Your task to perform on an android device: read, delete, or share a saved page in the chrome app Image 0: 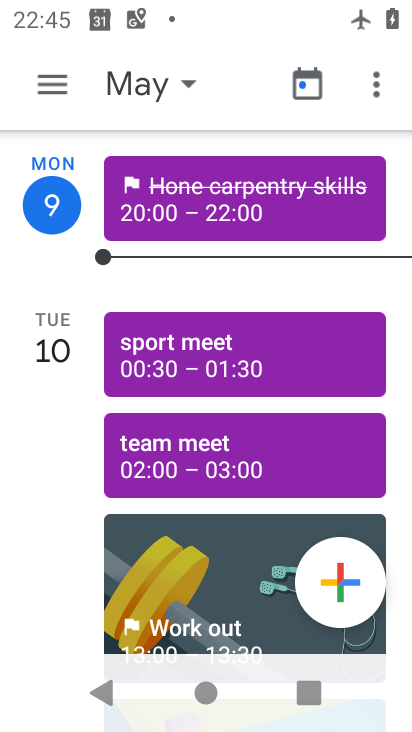
Step 0: press home button
Your task to perform on an android device: read, delete, or share a saved page in the chrome app Image 1: 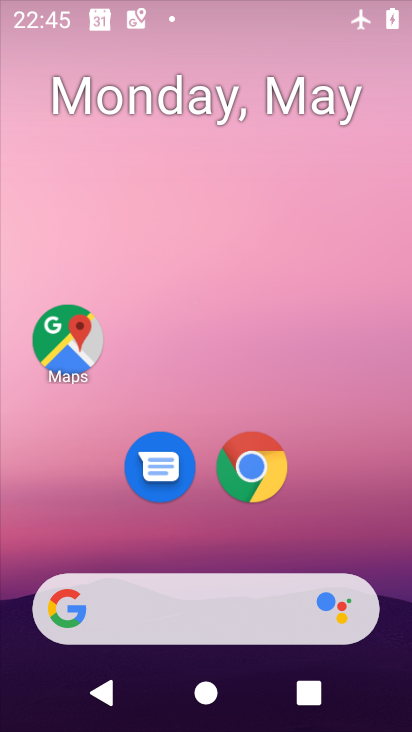
Step 1: drag from (222, 553) to (238, 294)
Your task to perform on an android device: read, delete, or share a saved page in the chrome app Image 2: 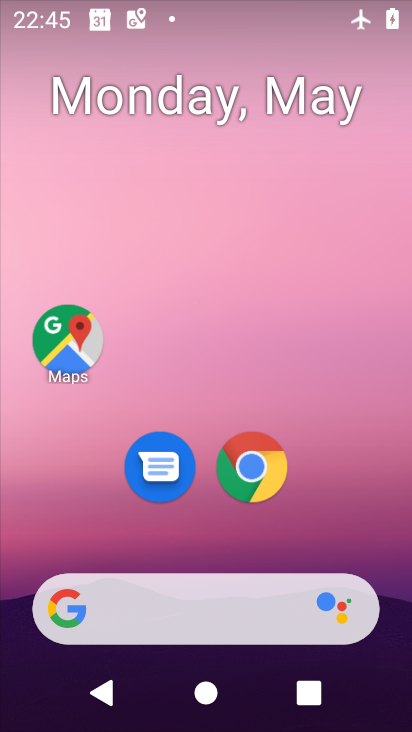
Step 2: click (256, 465)
Your task to perform on an android device: read, delete, or share a saved page in the chrome app Image 3: 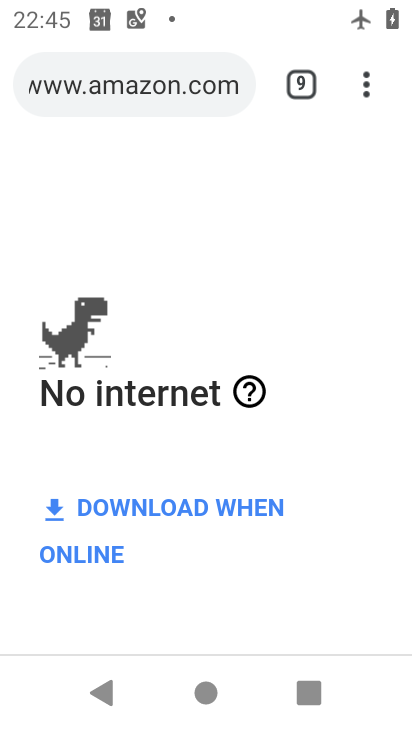
Step 3: click (356, 87)
Your task to perform on an android device: read, delete, or share a saved page in the chrome app Image 4: 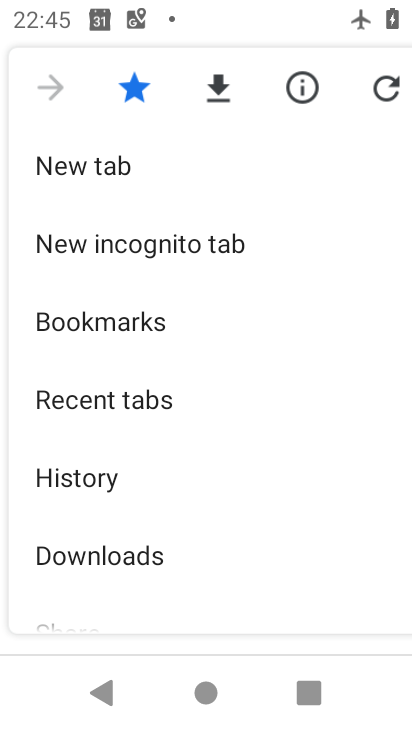
Step 4: click (114, 537)
Your task to perform on an android device: read, delete, or share a saved page in the chrome app Image 5: 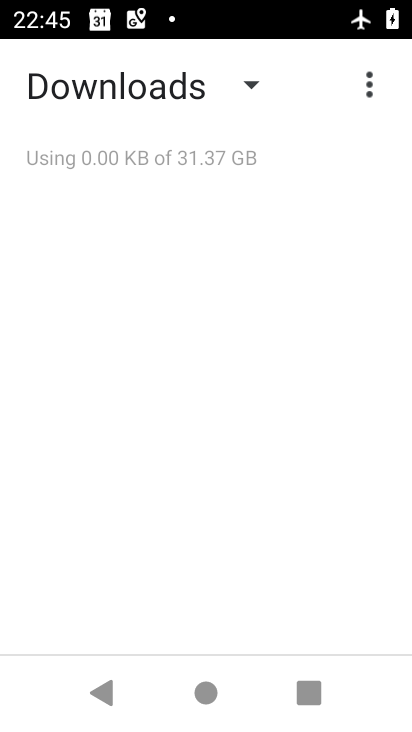
Step 5: click (249, 89)
Your task to perform on an android device: read, delete, or share a saved page in the chrome app Image 6: 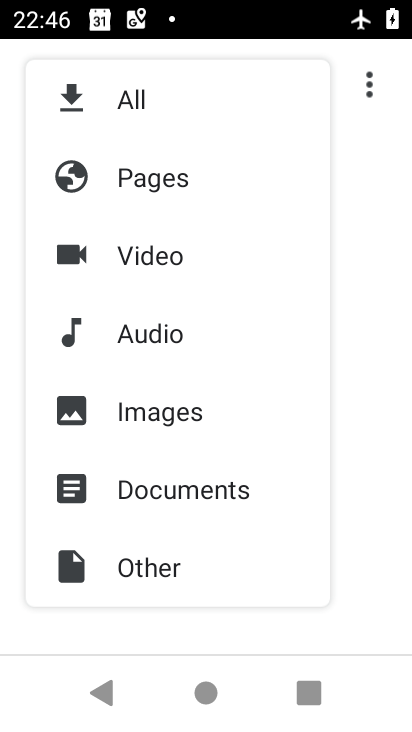
Step 6: click (183, 171)
Your task to perform on an android device: read, delete, or share a saved page in the chrome app Image 7: 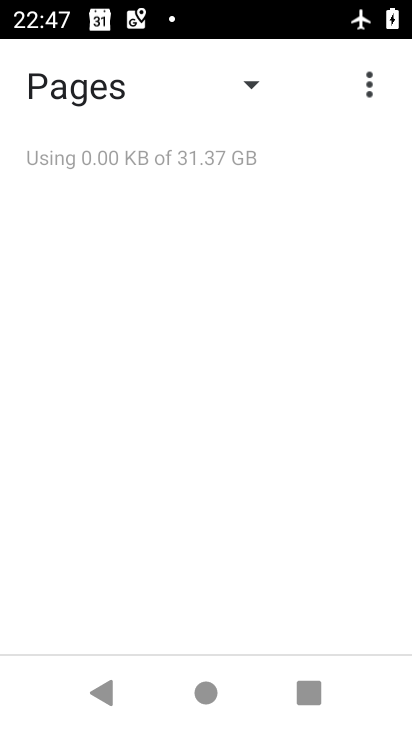
Step 7: task complete